Your task to perform on an android device: Go to sound settings Image 0: 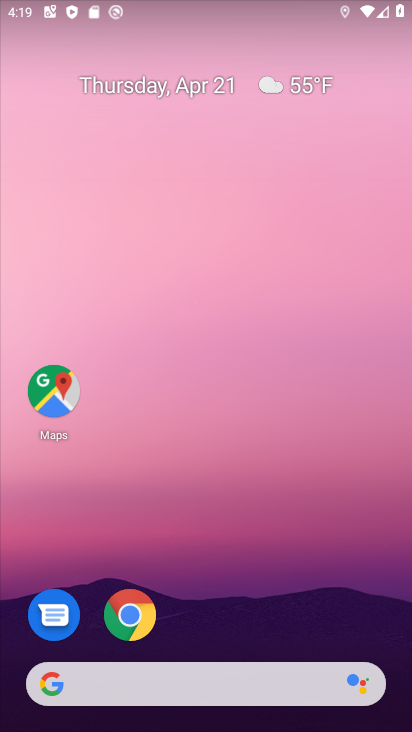
Step 0: drag from (207, 644) to (217, 193)
Your task to perform on an android device: Go to sound settings Image 1: 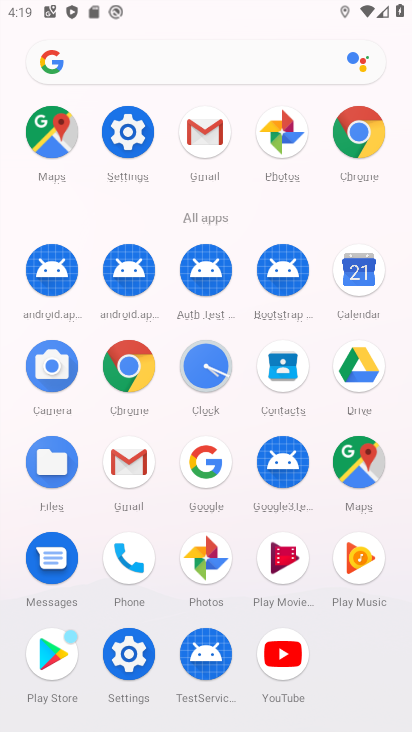
Step 1: click (136, 141)
Your task to perform on an android device: Go to sound settings Image 2: 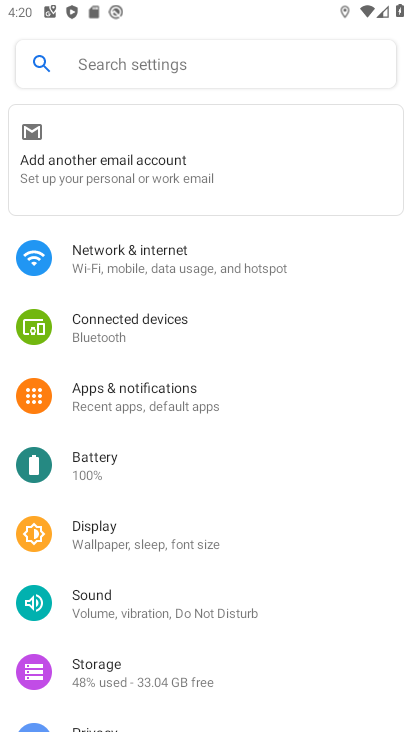
Step 2: click (120, 594)
Your task to perform on an android device: Go to sound settings Image 3: 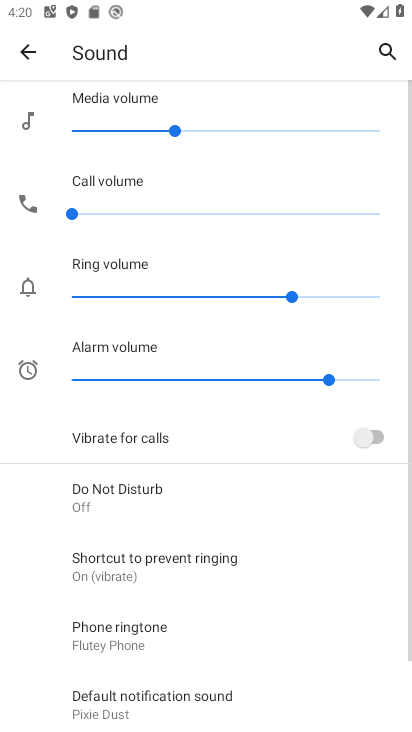
Step 3: task complete